Your task to perform on an android device: Go to CNN.com Image 0: 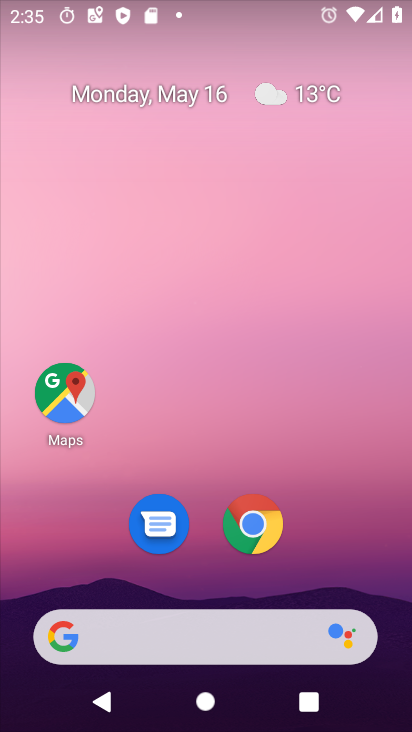
Step 0: drag from (209, 448) to (176, 74)
Your task to perform on an android device: Go to CNN.com Image 1: 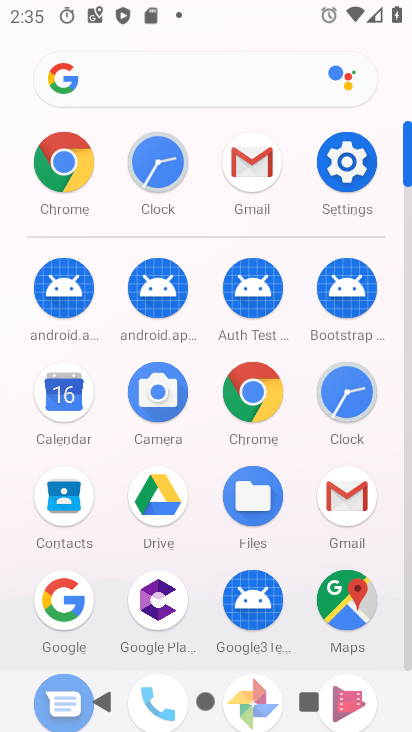
Step 1: click (68, 605)
Your task to perform on an android device: Go to CNN.com Image 2: 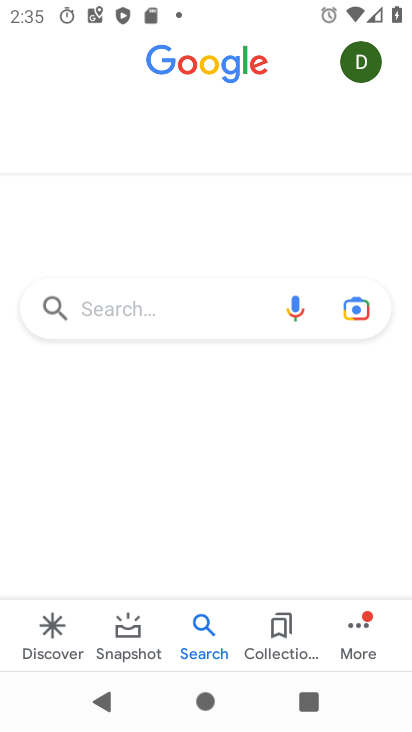
Step 2: click (182, 303)
Your task to perform on an android device: Go to CNN.com Image 3: 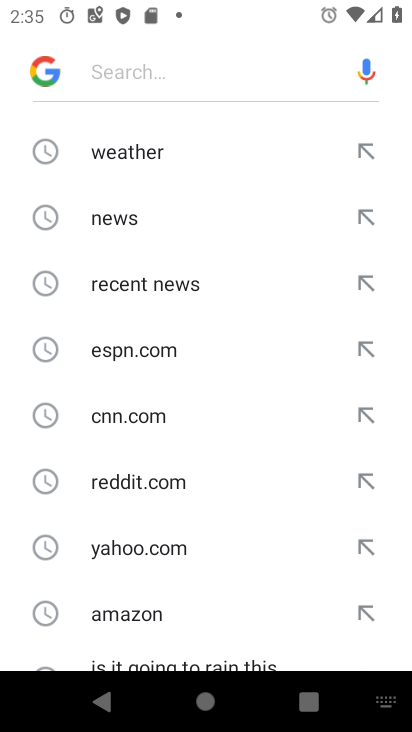
Step 3: click (136, 408)
Your task to perform on an android device: Go to CNN.com Image 4: 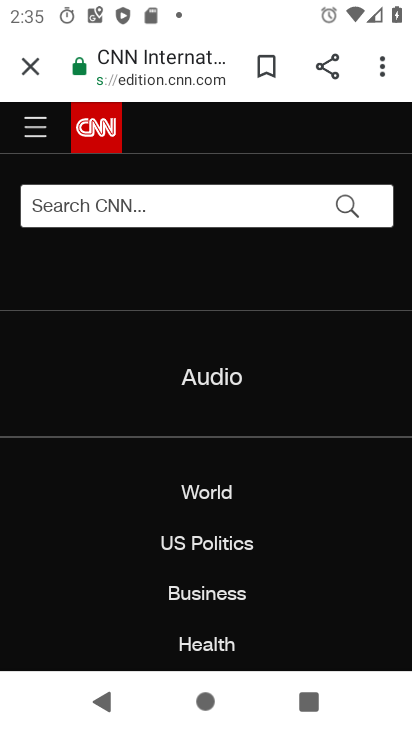
Step 4: task complete